Your task to perform on an android device: toggle pop-ups in chrome Image 0: 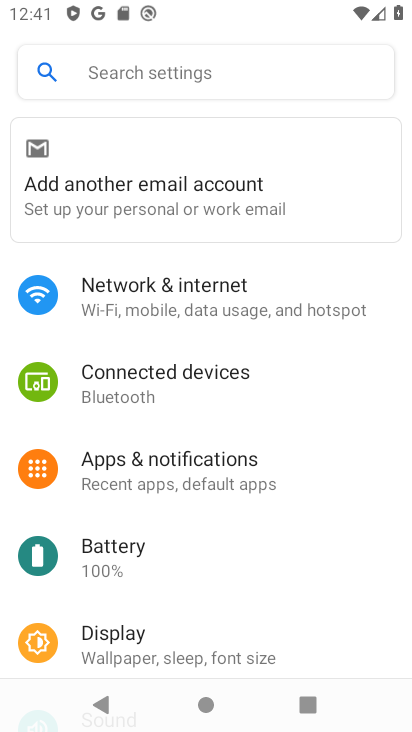
Step 0: press back button
Your task to perform on an android device: toggle pop-ups in chrome Image 1: 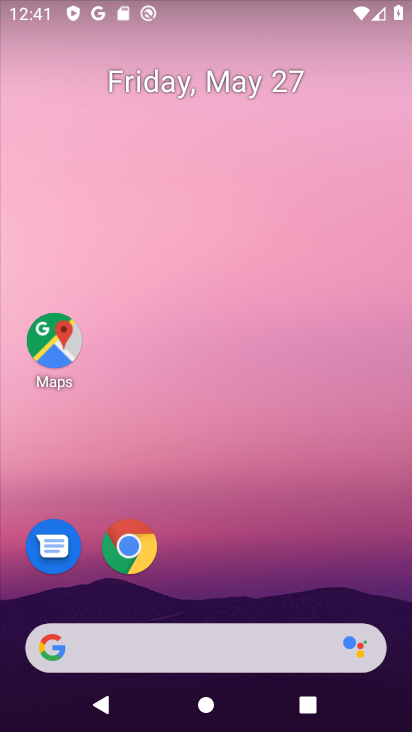
Step 1: drag from (264, 712) to (187, 202)
Your task to perform on an android device: toggle pop-ups in chrome Image 2: 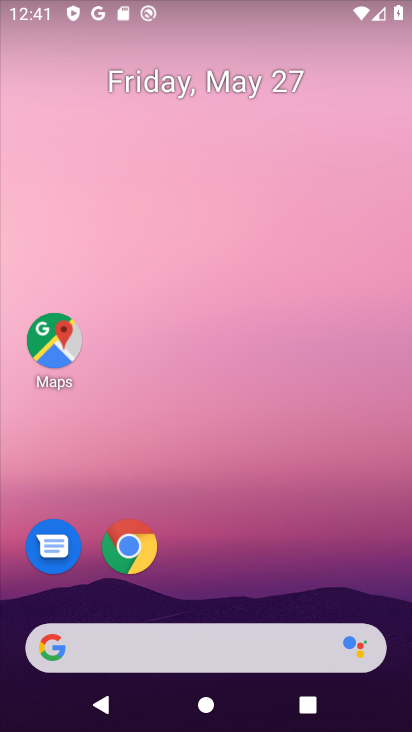
Step 2: drag from (210, 508) to (177, 214)
Your task to perform on an android device: toggle pop-ups in chrome Image 3: 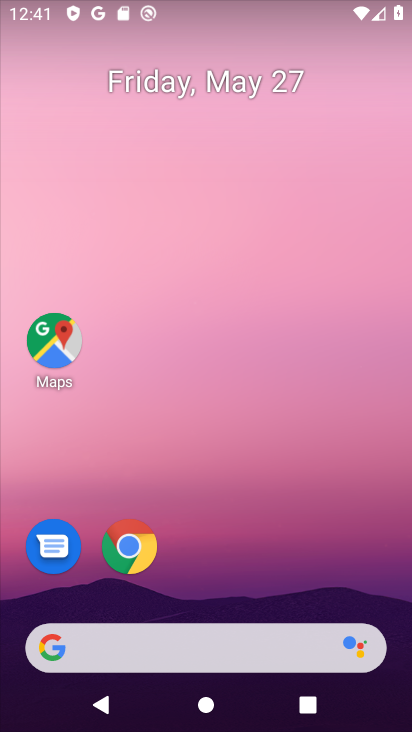
Step 3: drag from (245, 645) to (182, 198)
Your task to perform on an android device: toggle pop-ups in chrome Image 4: 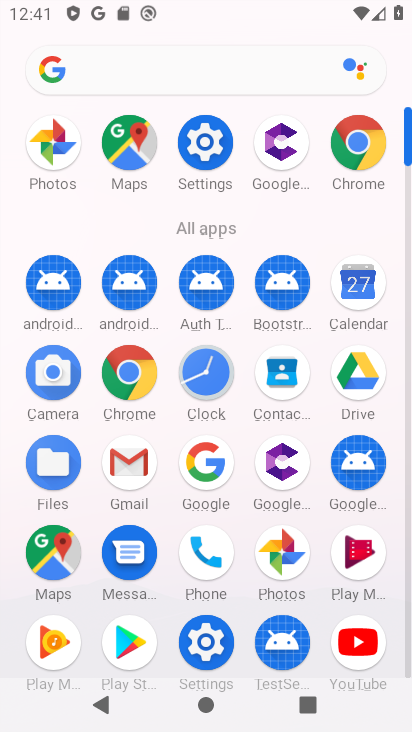
Step 4: click (138, 363)
Your task to perform on an android device: toggle pop-ups in chrome Image 5: 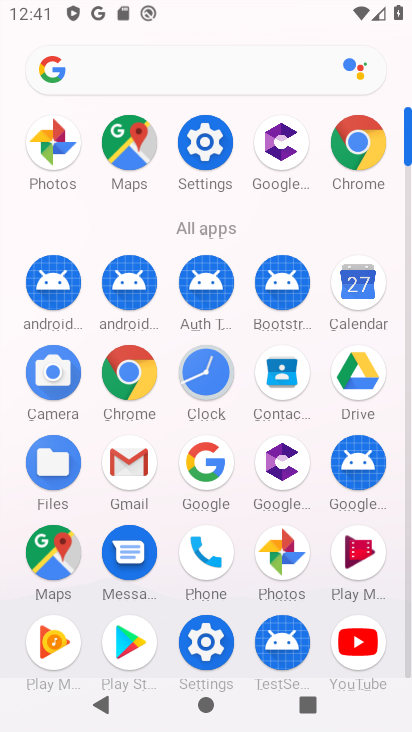
Step 5: click (138, 363)
Your task to perform on an android device: toggle pop-ups in chrome Image 6: 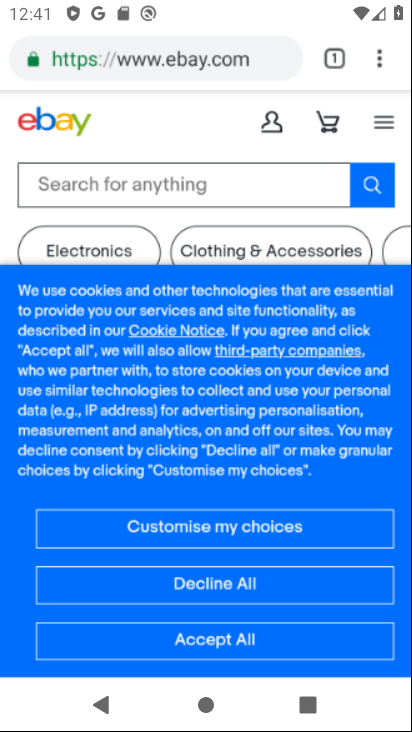
Step 6: click (138, 363)
Your task to perform on an android device: toggle pop-ups in chrome Image 7: 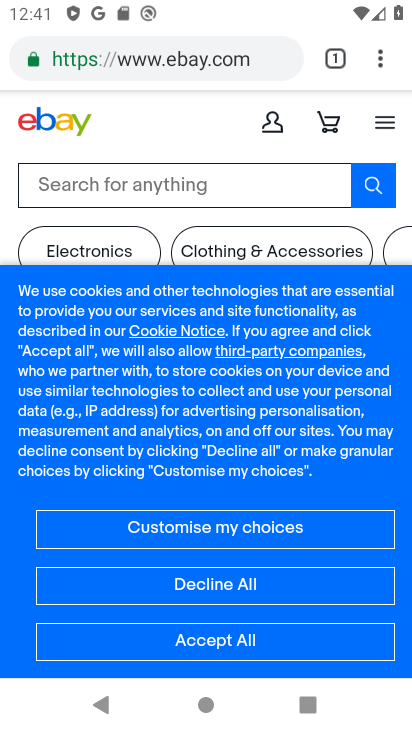
Step 7: click (382, 65)
Your task to perform on an android device: toggle pop-ups in chrome Image 8: 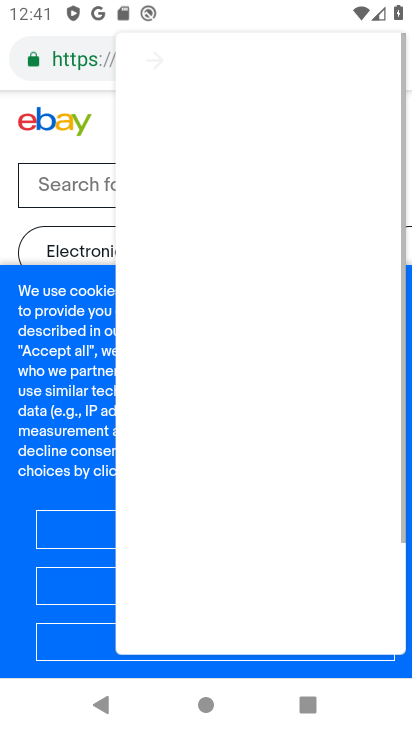
Step 8: click (382, 65)
Your task to perform on an android device: toggle pop-ups in chrome Image 9: 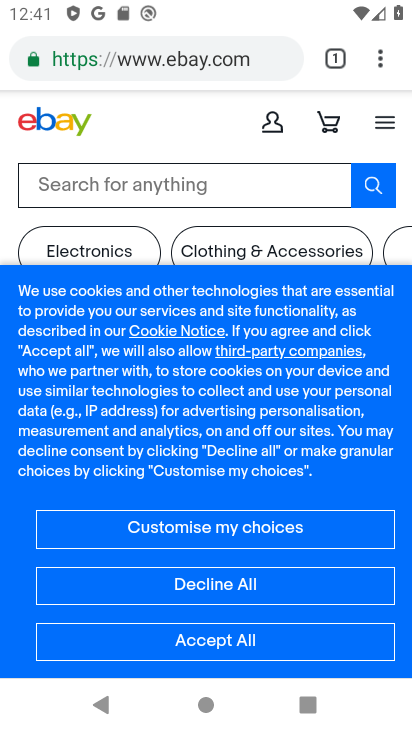
Step 9: drag from (376, 64) to (171, 568)
Your task to perform on an android device: toggle pop-ups in chrome Image 10: 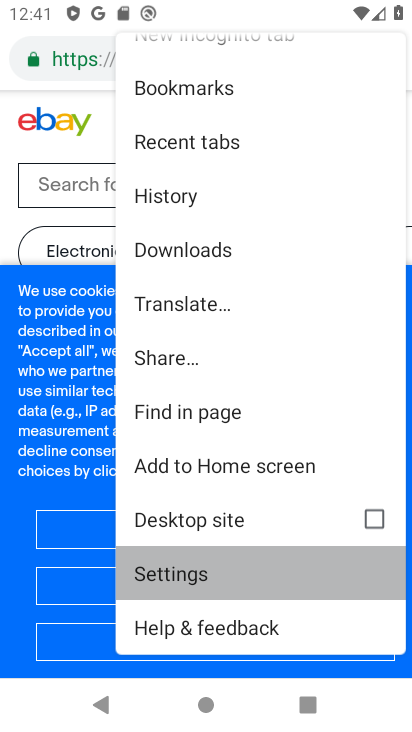
Step 10: click (171, 568)
Your task to perform on an android device: toggle pop-ups in chrome Image 11: 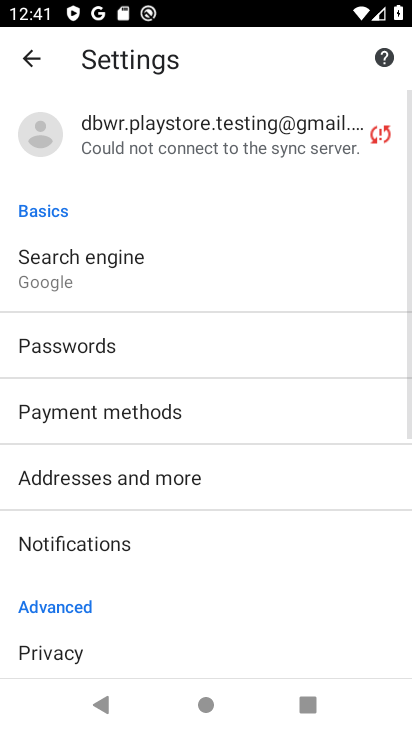
Step 11: drag from (149, 532) to (137, 162)
Your task to perform on an android device: toggle pop-ups in chrome Image 12: 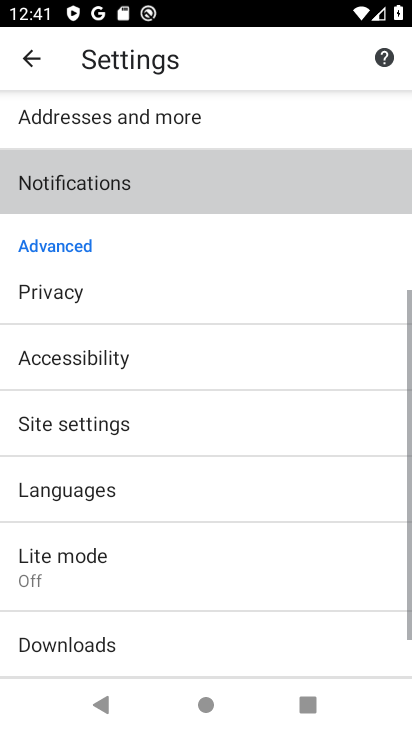
Step 12: drag from (173, 510) to (207, 199)
Your task to perform on an android device: toggle pop-ups in chrome Image 13: 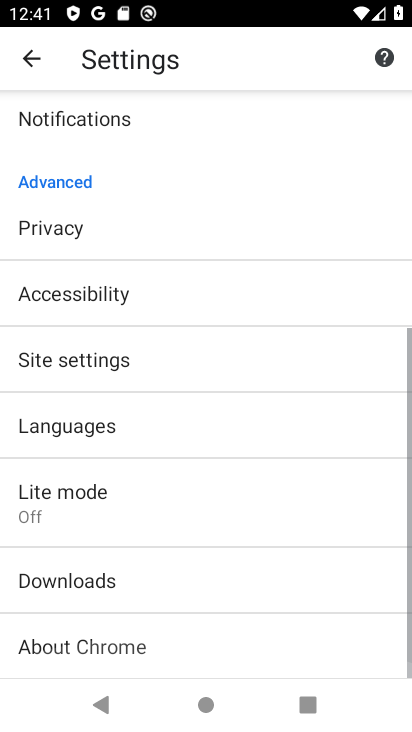
Step 13: drag from (220, 435) to (239, 153)
Your task to perform on an android device: toggle pop-ups in chrome Image 14: 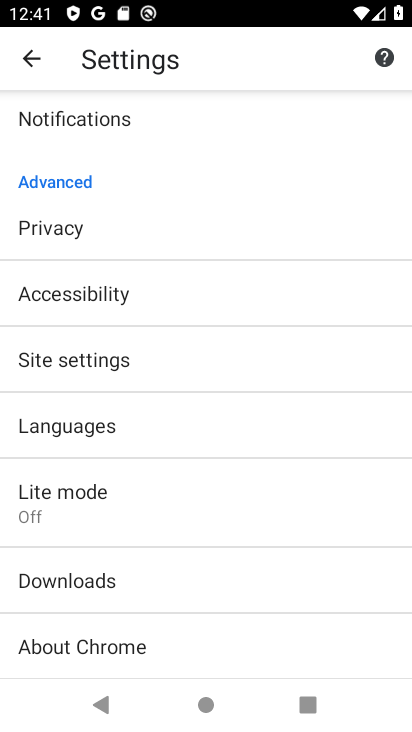
Step 14: drag from (113, 282) to (113, 515)
Your task to perform on an android device: toggle pop-ups in chrome Image 15: 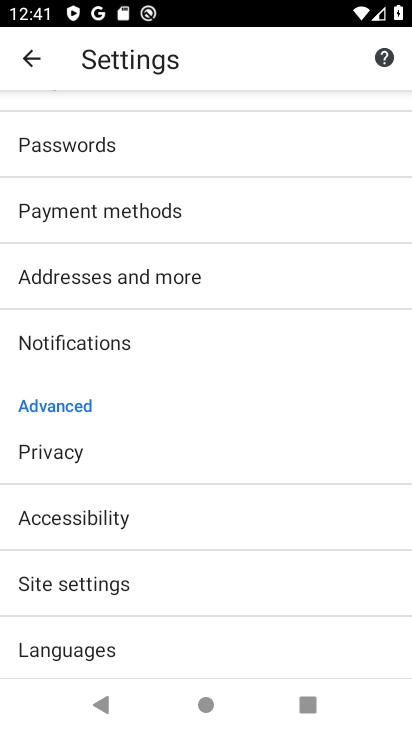
Step 15: drag from (153, 209) to (206, 485)
Your task to perform on an android device: toggle pop-ups in chrome Image 16: 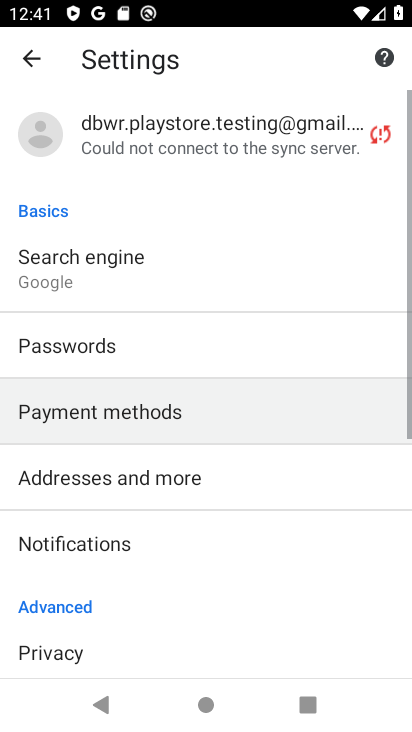
Step 16: drag from (222, 197) to (247, 537)
Your task to perform on an android device: toggle pop-ups in chrome Image 17: 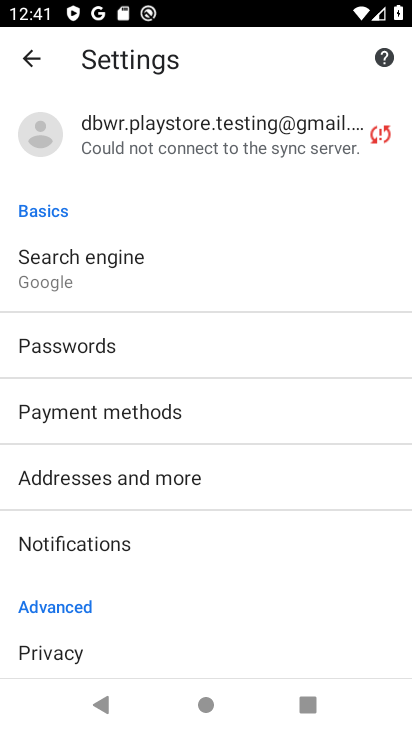
Step 17: drag from (217, 268) to (220, 194)
Your task to perform on an android device: toggle pop-ups in chrome Image 18: 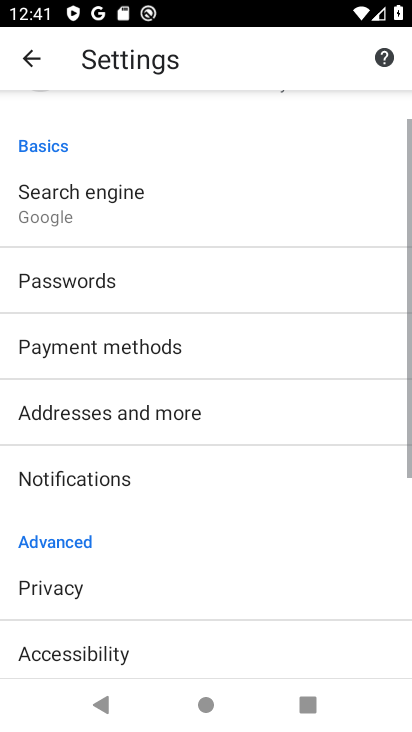
Step 18: drag from (198, 428) to (229, 184)
Your task to perform on an android device: toggle pop-ups in chrome Image 19: 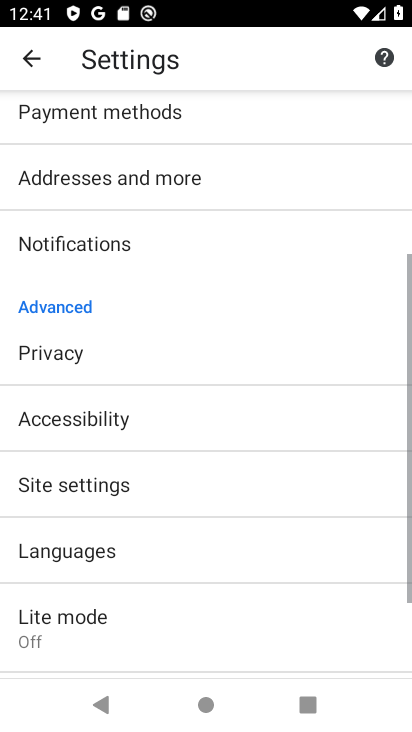
Step 19: drag from (222, 292) to (237, 188)
Your task to perform on an android device: toggle pop-ups in chrome Image 20: 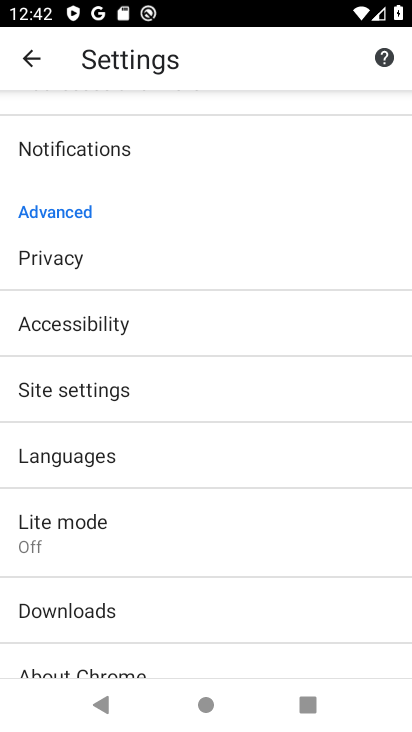
Step 20: click (58, 384)
Your task to perform on an android device: toggle pop-ups in chrome Image 21: 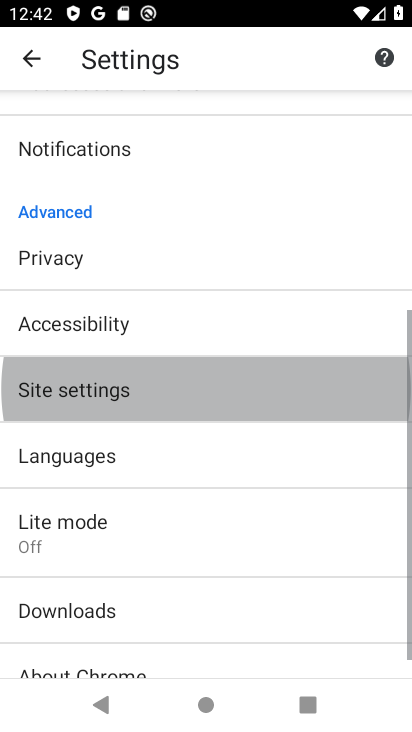
Step 21: click (58, 384)
Your task to perform on an android device: toggle pop-ups in chrome Image 22: 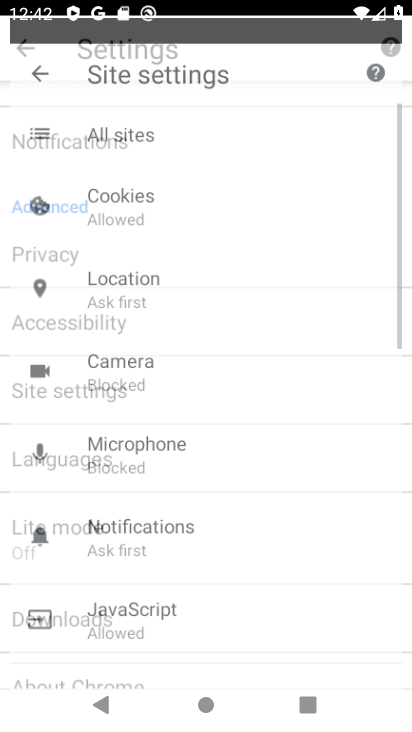
Step 22: click (58, 384)
Your task to perform on an android device: toggle pop-ups in chrome Image 23: 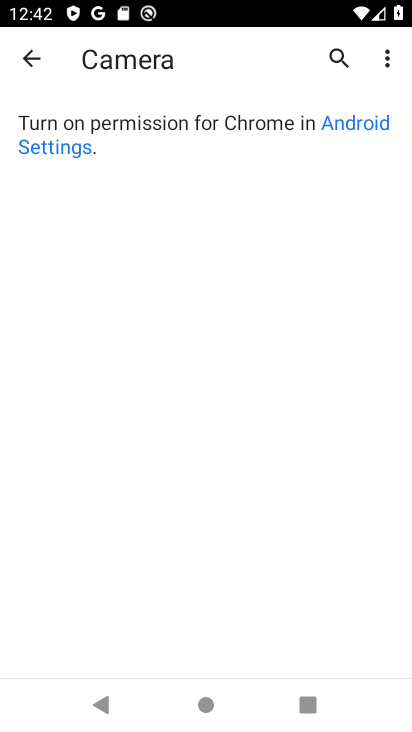
Step 23: click (30, 52)
Your task to perform on an android device: toggle pop-ups in chrome Image 24: 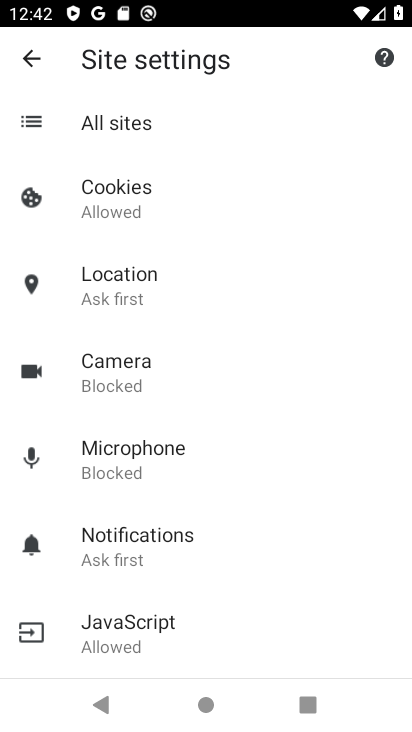
Step 24: drag from (156, 513) to (143, 139)
Your task to perform on an android device: toggle pop-ups in chrome Image 25: 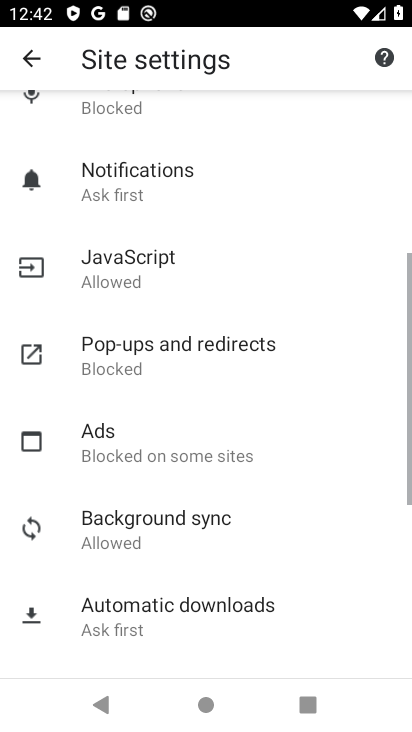
Step 25: drag from (143, 414) to (159, 136)
Your task to perform on an android device: toggle pop-ups in chrome Image 26: 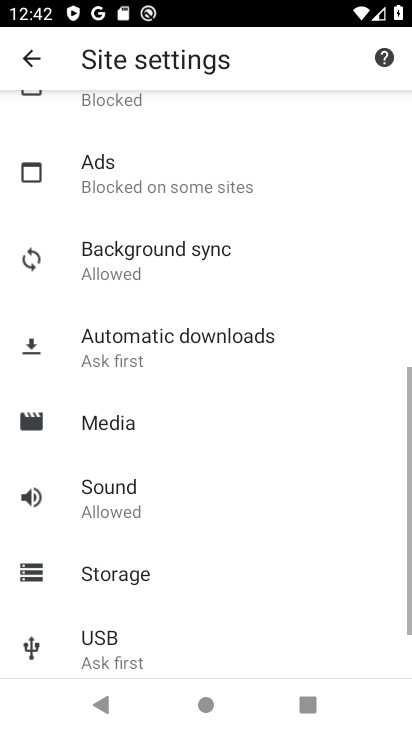
Step 26: click (141, 521)
Your task to perform on an android device: toggle pop-ups in chrome Image 27: 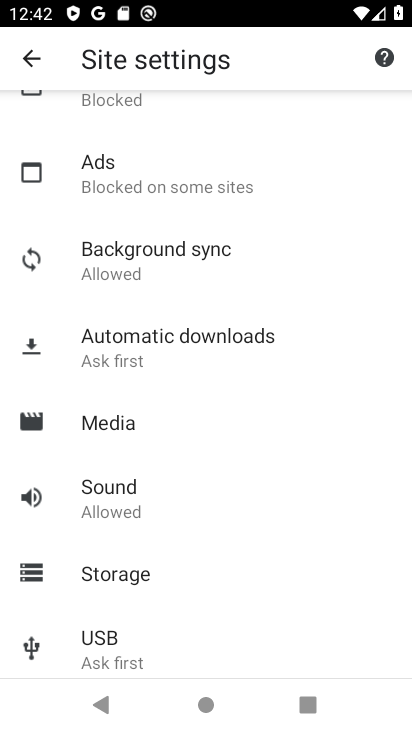
Step 27: drag from (135, 262) to (95, 552)
Your task to perform on an android device: toggle pop-ups in chrome Image 28: 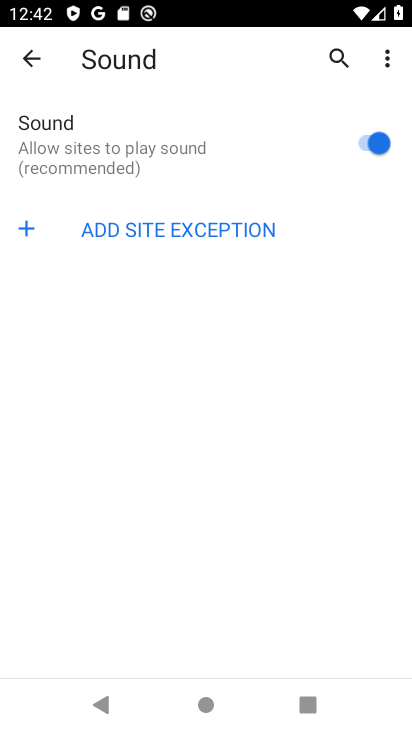
Step 28: click (26, 50)
Your task to perform on an android device: toggle pop-ups in chrome Image 29: 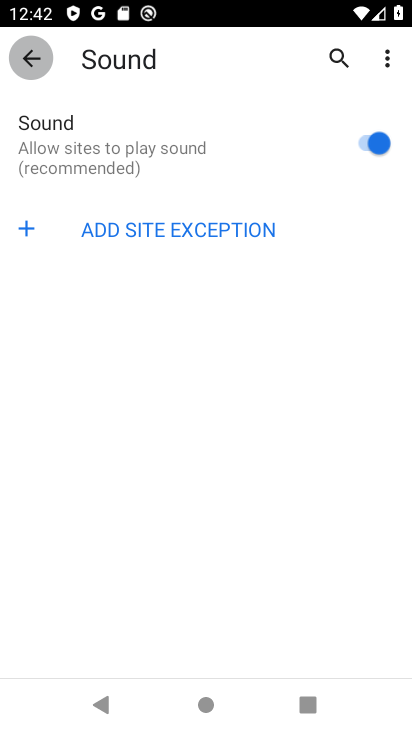
Step 29: click (29, 54)
Your task to perform on an android device: toggle pop-ups in chrome Image 30: 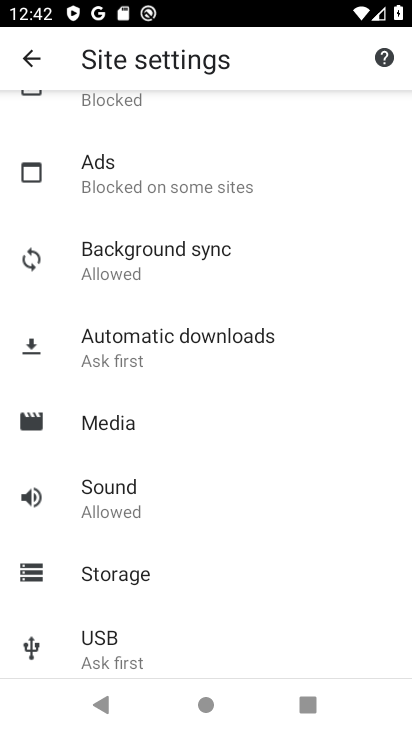
Step 30: drag from (113, 313) to (154, 591)
Your task to perform on an android device: toggle pop-ups in chrome Image 31: 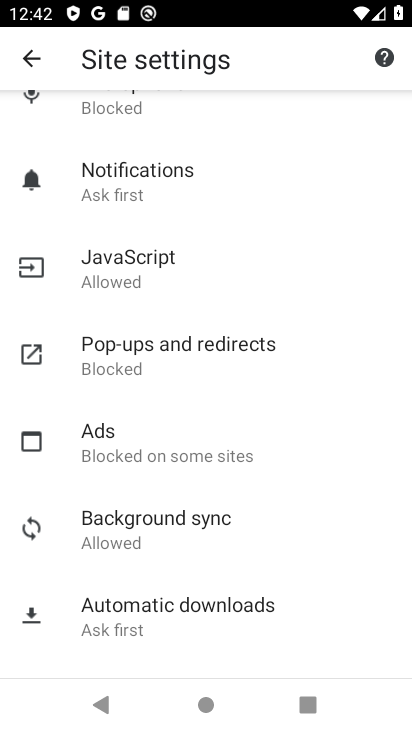
Step 31: click (136, 342)
Your task to perform on an android device: toggle pop-ups in chrome Image 32: 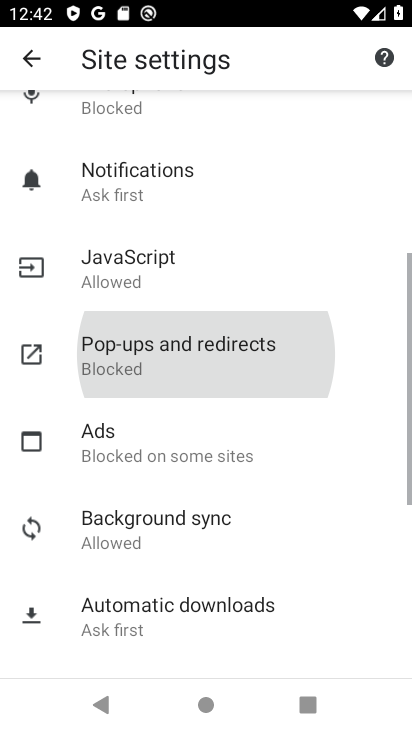
Step 32: click (136, 342)
Your task to perform on an android device: toggle pop-ups in chrome Image 33: 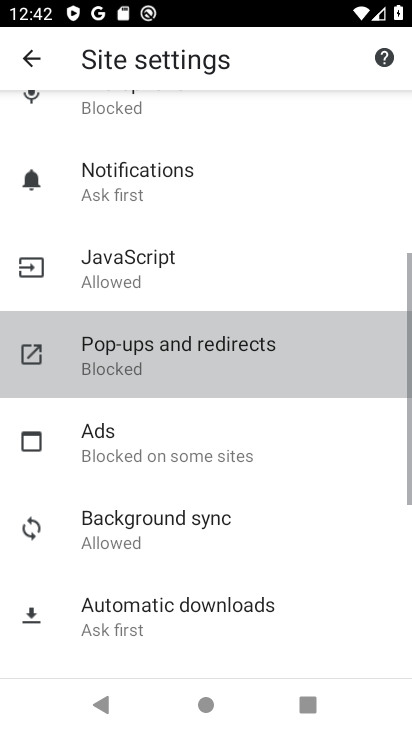
Step 33: click (136, 342)
Your task to perform on an android device: toggle pop-ups in chrome Image 34: 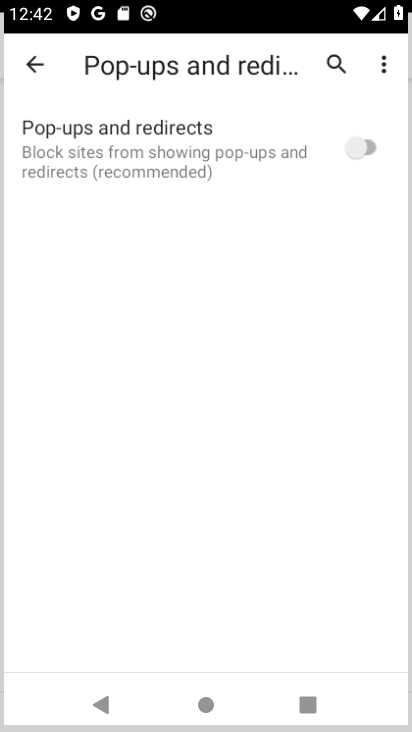
Step 34: click (136, 342)
Your task to perform on an android device: toggle pop-ups in chrome Image 35: 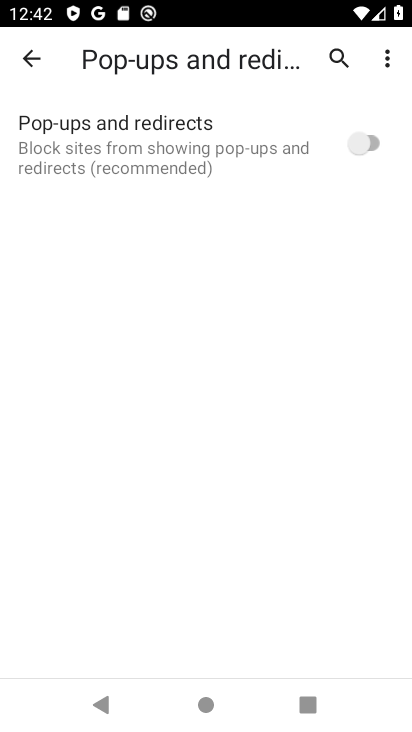
Step 35: click (138, 344)
Your task to perform on an android device: toggle pop-ups in chrome Image 36: 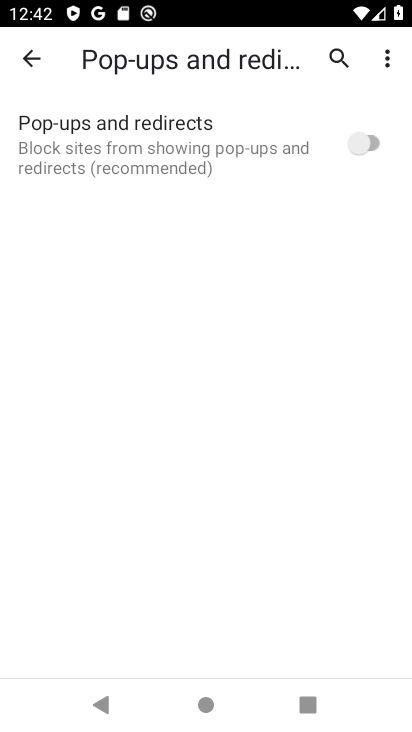
Step 36: click (361, 149)
Your task to perform on an android device: toggle pop-ups in chrome Image 37: 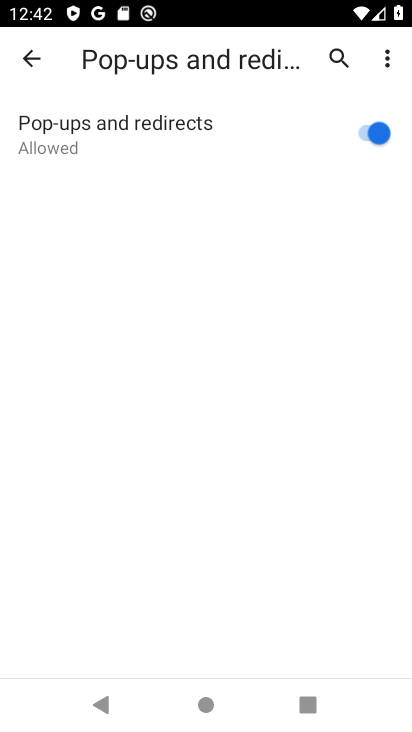
Step 37: task complete